Your task to perform on an android device: toggle javascript in the chrome app Image 0: 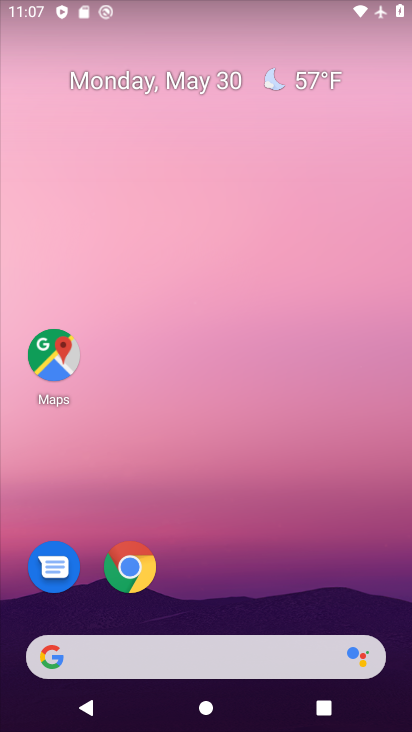
Step 0: click (151, 568)
Your task to perform on an android device: toggle javascript in the chrome app Image 1: 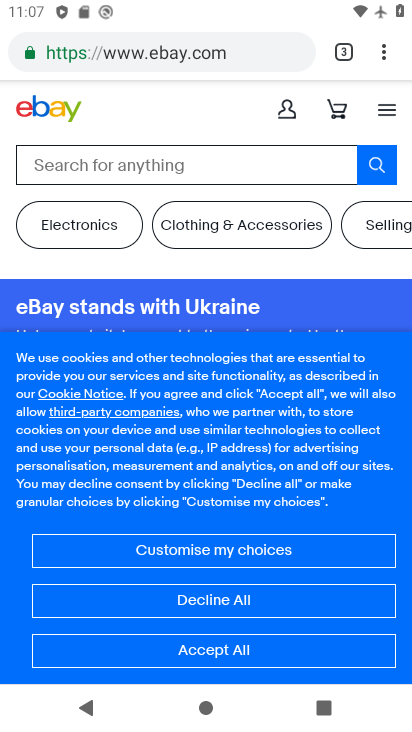
Step 1: click (381, 51)
Your task to perform on an android device: toggle javascript in the chrome app Image 2: 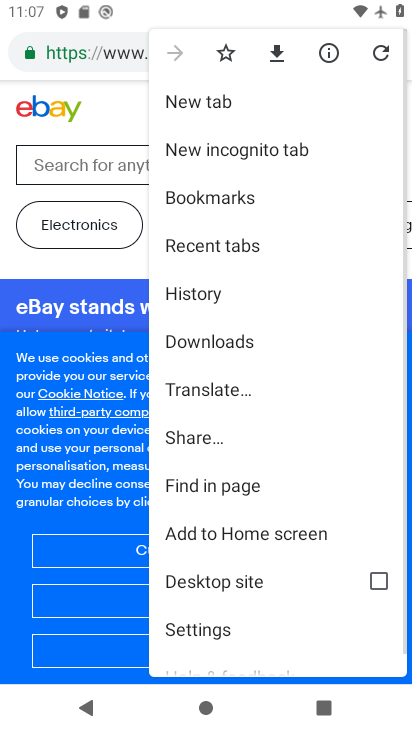
Step 2: drag from (253, 570) to (280, 322)
Your task to perform on an android device: toggle javascript in the chrome app Image 3: 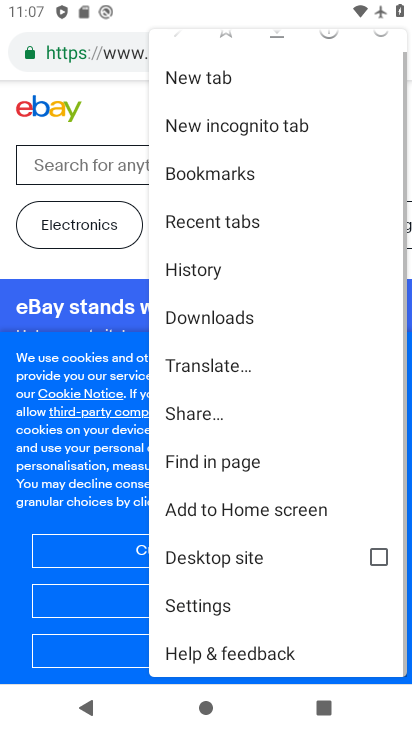
Step 3: click (227, 607)
Your task to perform on an android device: toggle javascript in the chrome app Image 4: 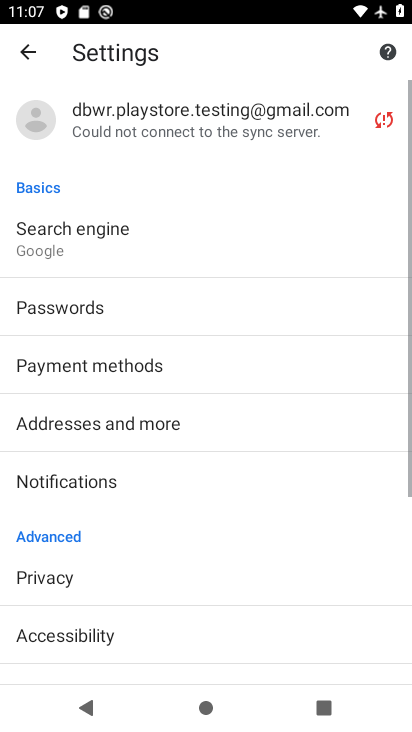
Step 4: drag from (219, 585) to (217, 294)
Your task to perform on an android device: toggle javascript in the chrome app Image 5: 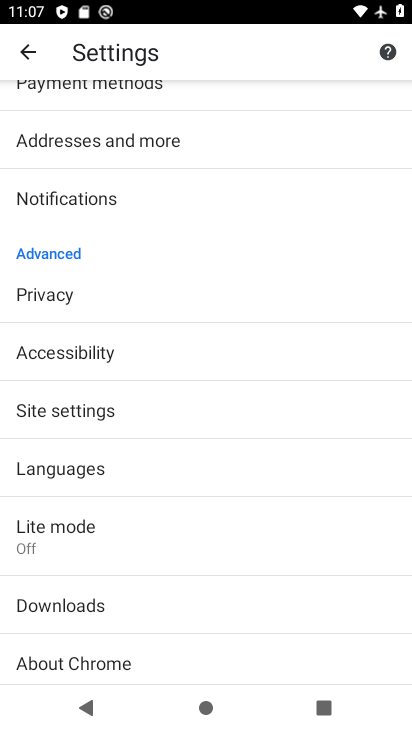
Step 5: click (124, 423)
Your task to perform on an android device: toggle javascript in the chrome app Image 6: 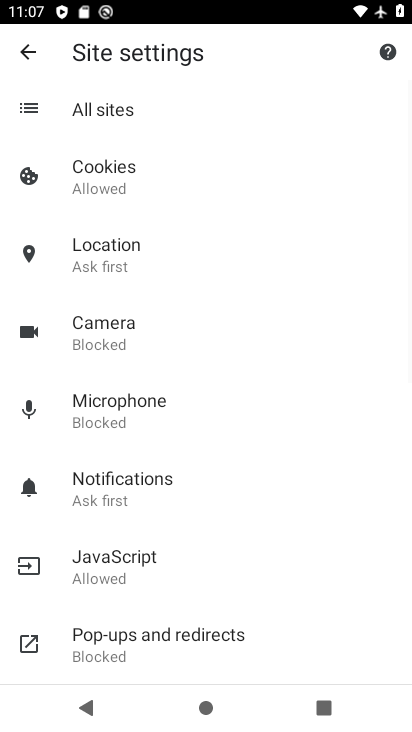
Step 6: click (187, 550)
Your task to perform on an android device: toggle javascript in the chrome app Image 7: 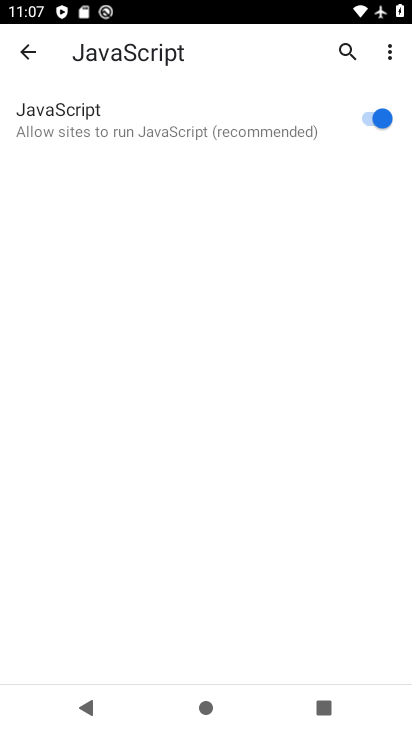
Step 7: click (354, 116)
Your task to perform on an android device: toggle javascript in the chrome app Image 8: 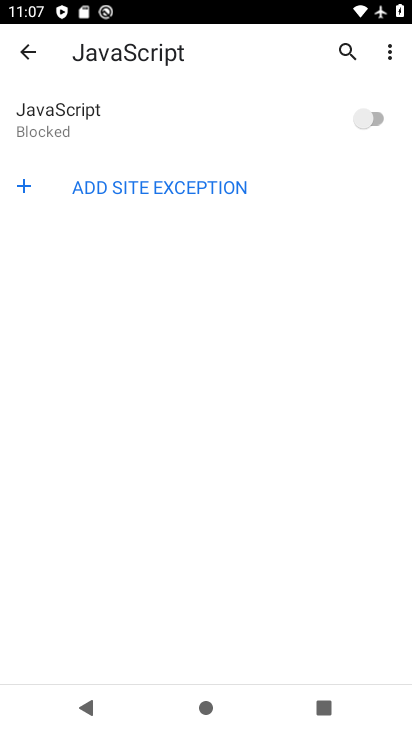
Step 8: task complete